Your task to perform on an android device: Clear all items from cart on newegg. Search for dell alienware on newegg, select the first entry, add it to the cart, then select checkout. Image 0: 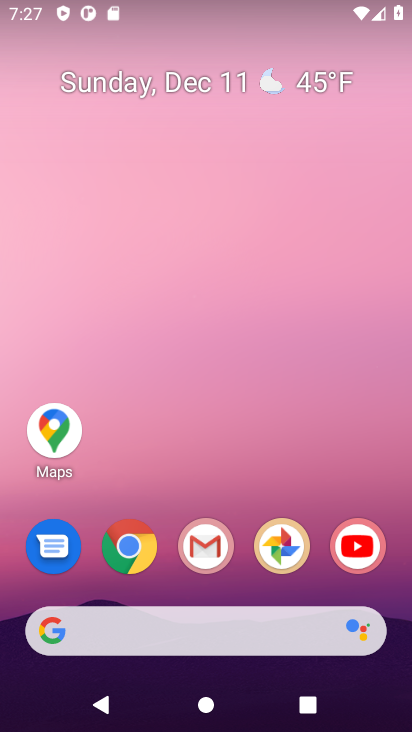
Step 0: click (133, 550)
Your task to perform on an android device: Clear all items from cart on newegg. Search for dell alienware on newegg, select the first entry, add it to the cart, then select checkout. Image 1: 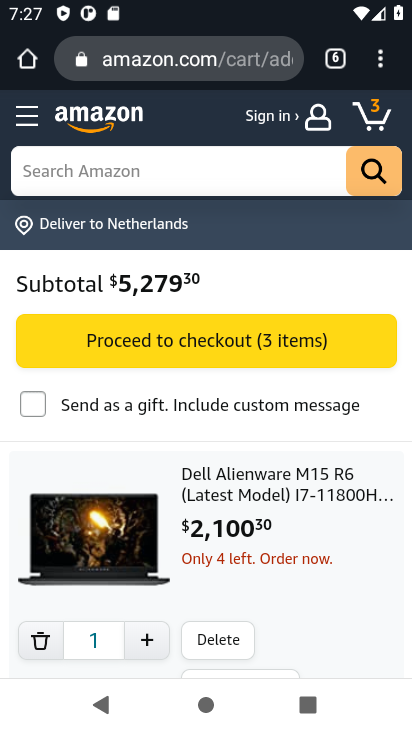
Step 1: click (163, 55)
Your task to perform on an android device: Clear all items from cart on newegg. Search for dell alienware on newegg, select the first entry, add it to the cart, then select checkout. Image 2: 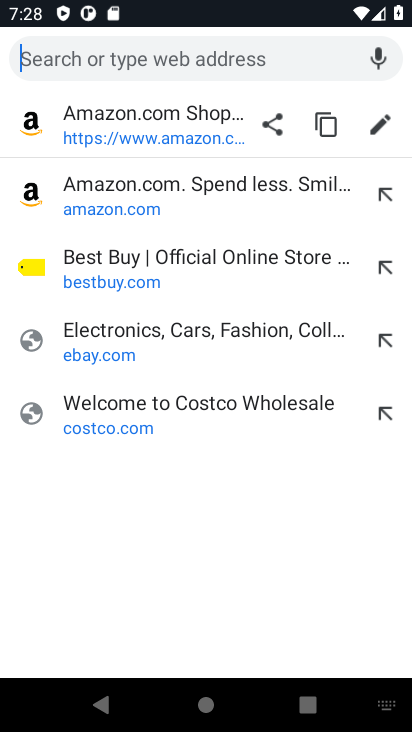
Step 2: type "newegg.com"
Your task to perform on an android device: Clear all items from cart on newegg. Search for dell alienware on newegg, select the first entry, add it to the cart, then select checkout. Image 3: 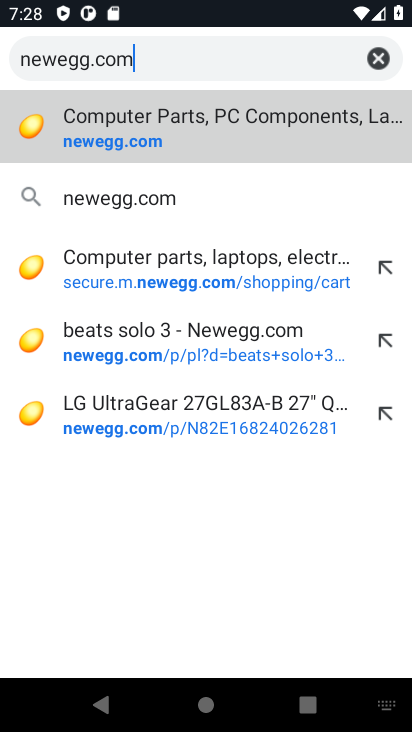
Step 3: click (94, 148)
Your task to perform on an android device: Clear all items from cart on newegg. Search for dell alienware on newegg, select the first entry, add it to the cart, then select checkout. Image 4: 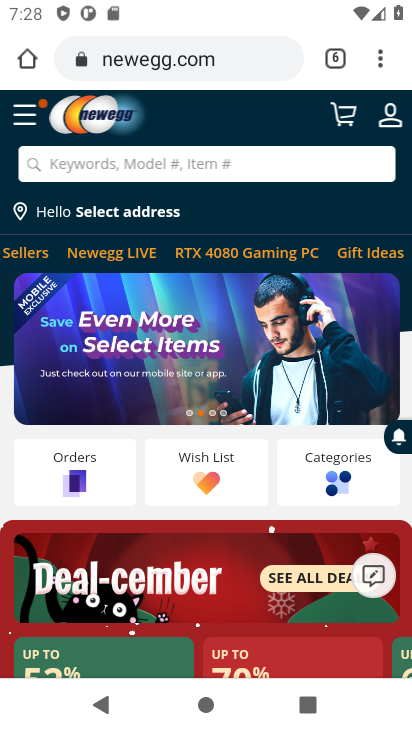
Step 4: click (338, 127)
Your task to perform on an android device: Clear all items from cart on newegg. Search for dell alienware on newegg, select the first entry, add it to the cart, then select checkout. Image 5: 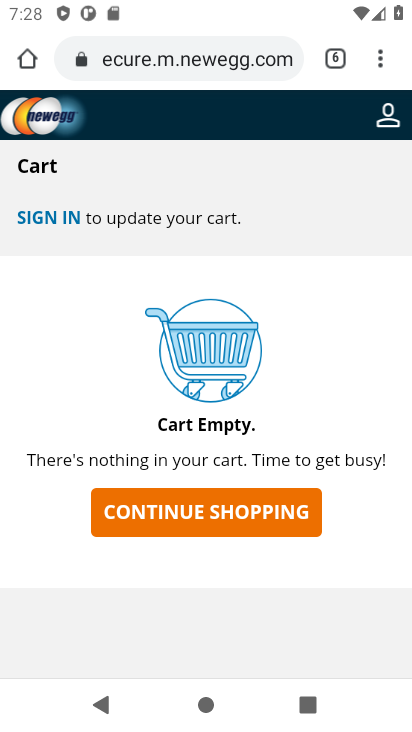
Step 5: click (233, 516)
Your task to perform on an android device: Clear all items from cart on newegg. Search for dell alienware on newegg, select the first entry, add it to the cart, then select checkout. Image 6: 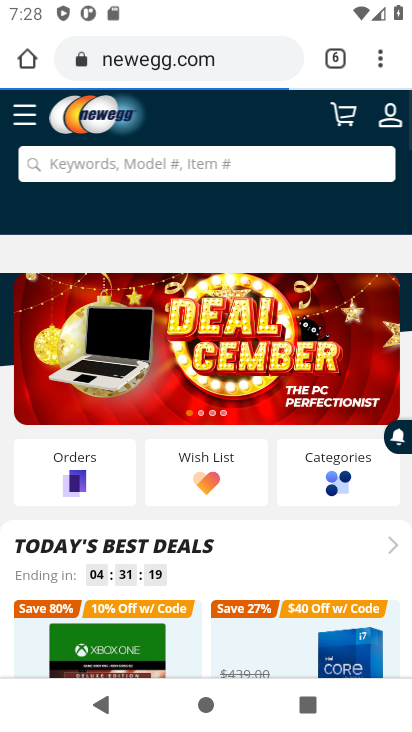
Step 6: click (233, 516)
Your task to perform on an android device: Clear all items from cart on newegg. Search for dell alienware on newegg, select the first entry, add it to the cart, then select checkout. Image 7: 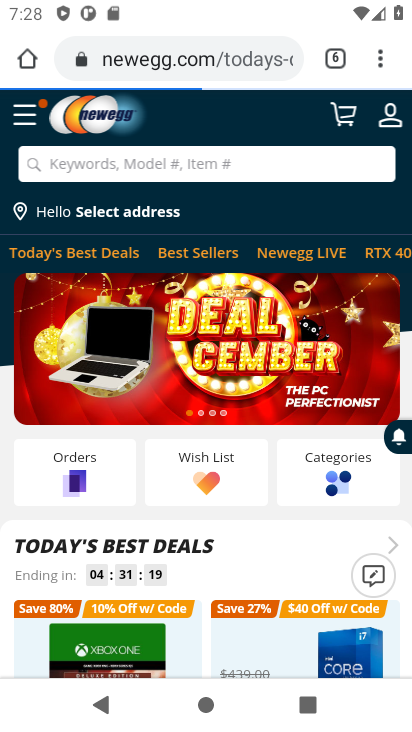
Step 7: click (151, 171)
Your task to perform on an android device: Clear all items from cart on newegg. Search for dell alienware on newegg, select the first entry, add it to the cart, then select checkout. Image 8: 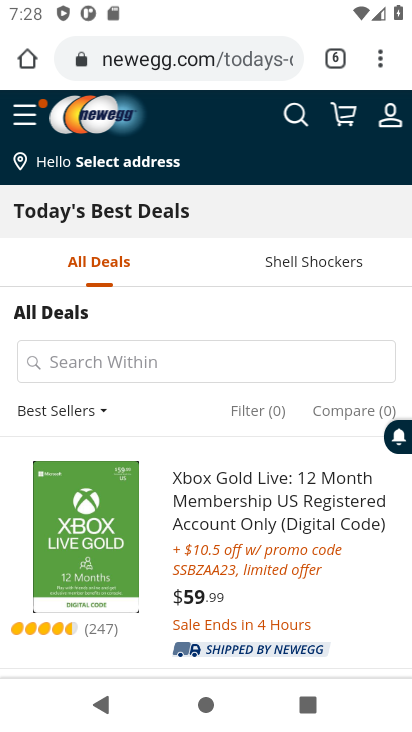
Step 8: click (300, 120)
Your task to perform on an android device: Clear all items from cart on newegg. Search for dell alienware on newegg, select the first entry, add it to the cart, then select checkout. Image 9: 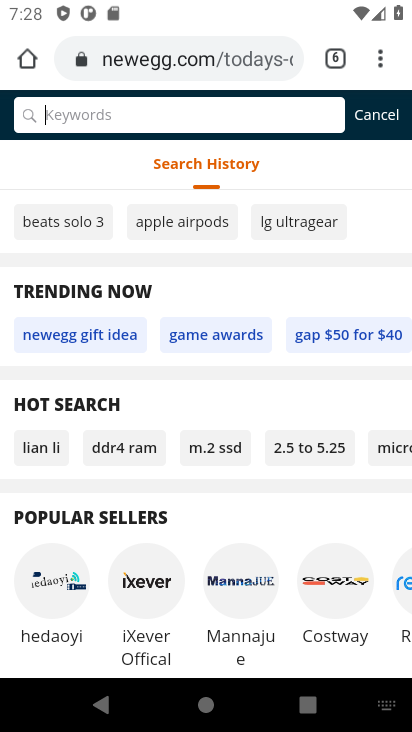
Step 9: type " dell alienware"
Your task to perform on an android device: Clear all items from cart on newegg. Search for dell alienware on newegg, select the first entry, add it to the cart, then select checkout. Image 10: 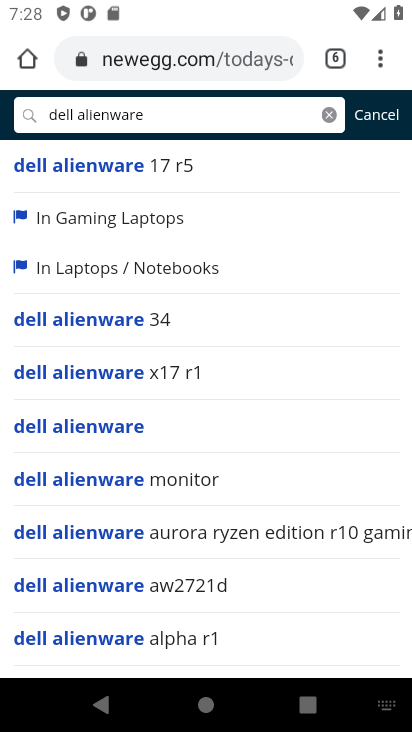
Step 10: click (91, 425)
Your task to perform on an android device: Clear all items from cart on newegg. Search for dell alienware on newegg, select the first entry, add it to the cart, then select checkout. Image 11: 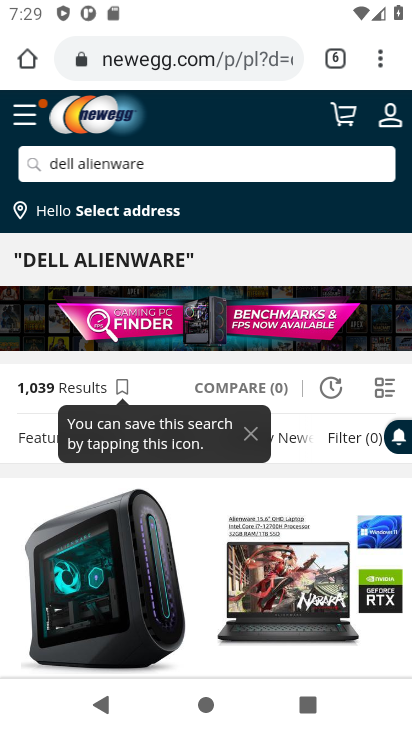
Step 11: task complete